Your task to perform on an android device: toggle pop-ups in chrome Image 0: 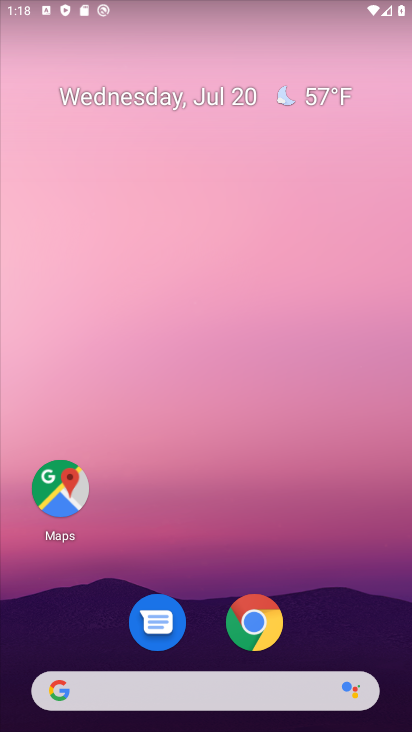
Step 0: click (272, 613)
Your task to perform on an android device: toggle pop-ups in chrome Image 1: 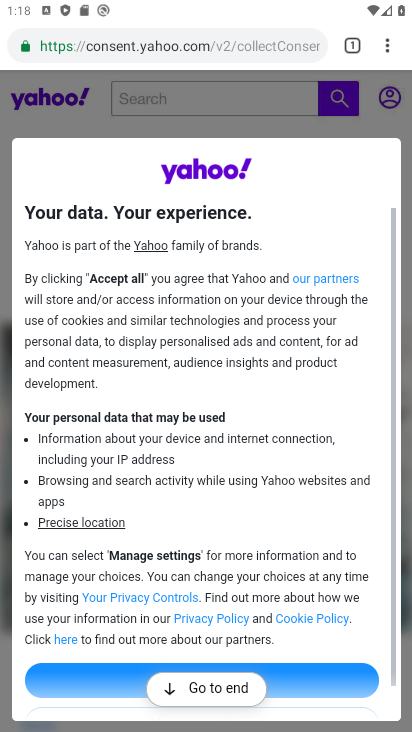
Step 1: click (384, 49)
Your task to perform on an android device: toggle pop-ups in chrome Image 2: 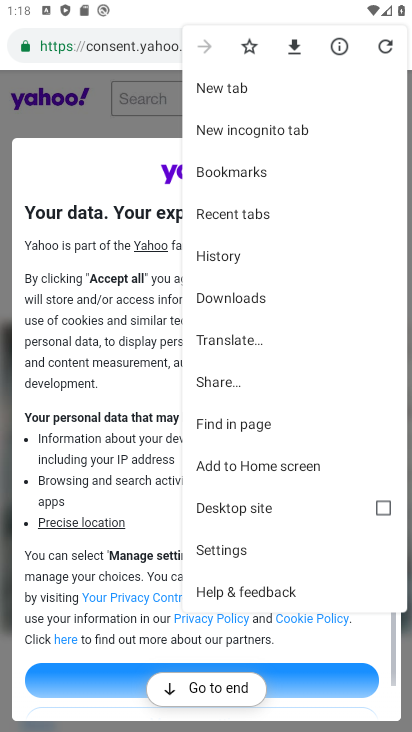
Step 2: click (259, 543)
Your task to perform on an android device: toggle pop-ups in chrome Image 3: 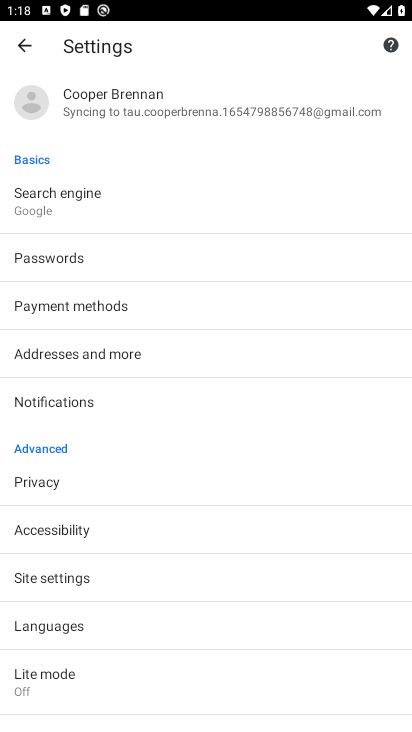
Step 3: click (158, 568)
Your task to perform on an android device: toggle pop-ups in chrome Image 4: 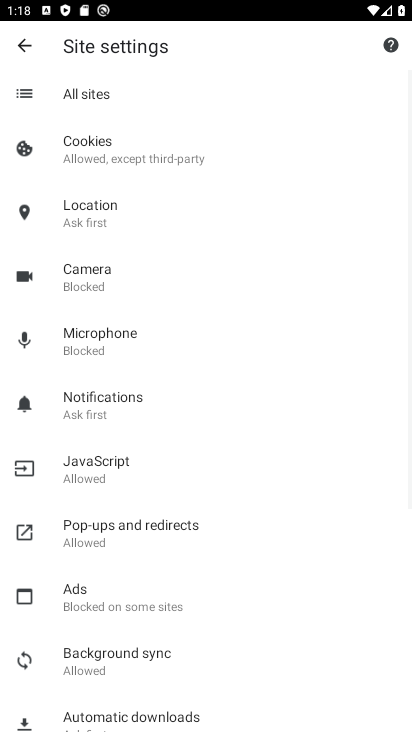
Step 4: click (168, 514)
Your task to perform on an android device: toggle pop-ups in chrome Image 5: 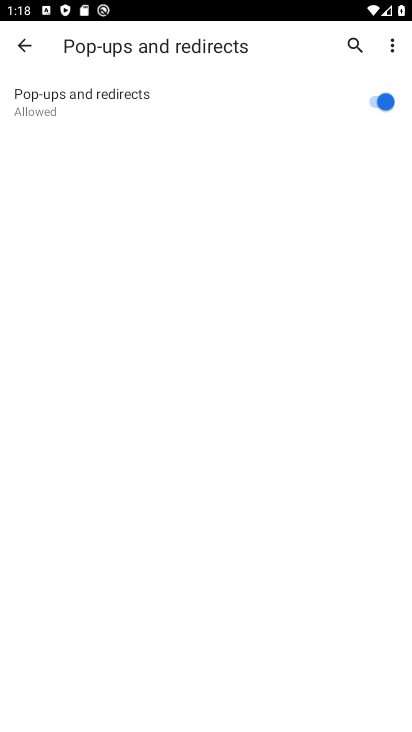
Step 5: click (377, 109)
Your task to perform on an android device: toggle pop-ups in chrome Image 6: 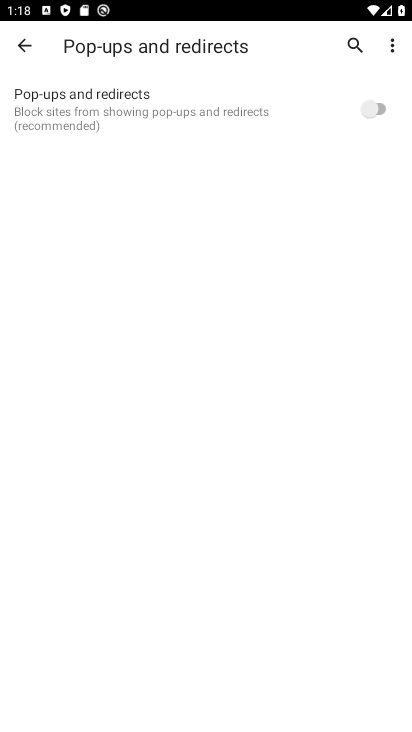
Step 6: task complete